Your task to perform on an android device: turn on the 24-hour format for clock Image 0: 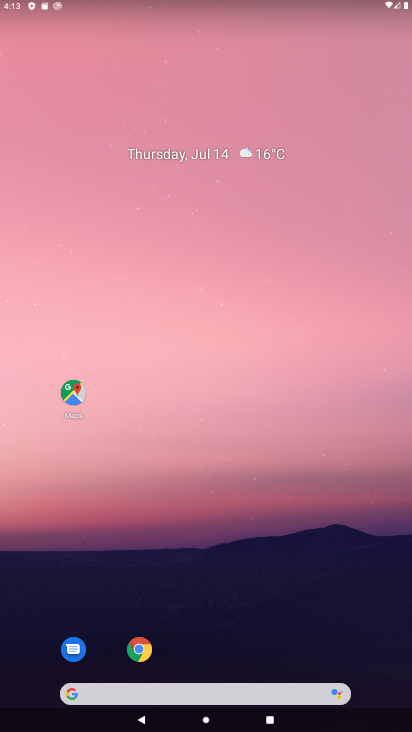
Step 0: drag from (227, 319) to (128, 33)
Your task to perform on an android device: turn on the 24-hour format for clock Image 1: 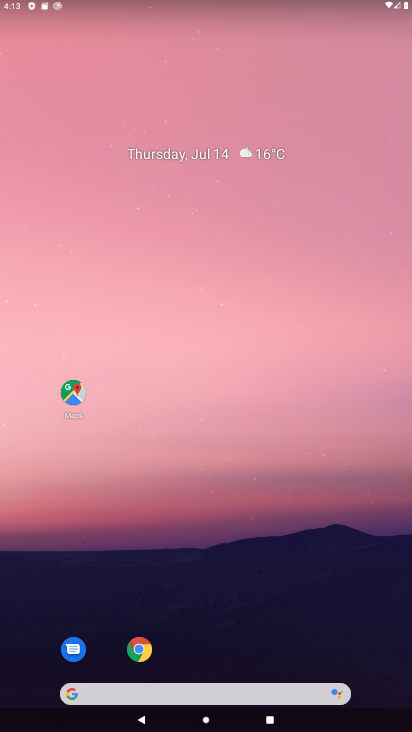
Step 1: drag from (291, 433) to (253, 14)
Your task to perform on an android device: turn on the 24-hour format for clock Image 2: 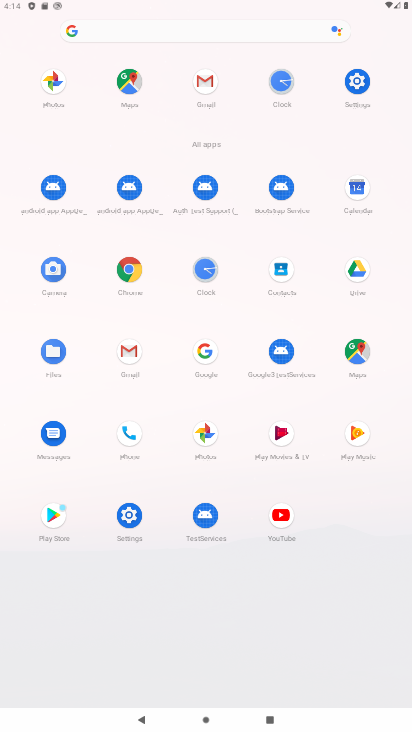
Step 2: click (209, 270)
Your task to perform on an android device: turn on the 24-hour format for clock Image 3: 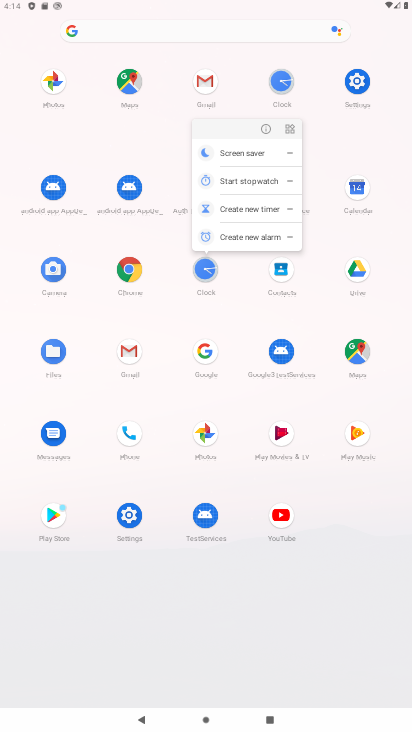
Step 3: click (213, 275)
Your task to perform on an android device: turn on the 24-hour format for clock Image 4: 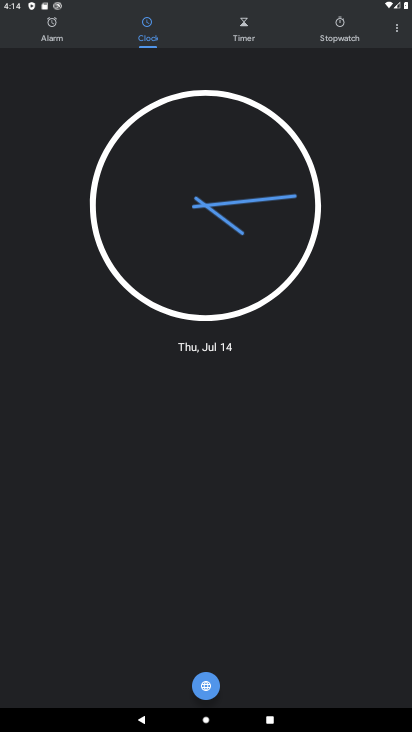
Step 4: click (397, 23)
Your task to perform on an android device: turn on the 24-hour format for clock Image 5: 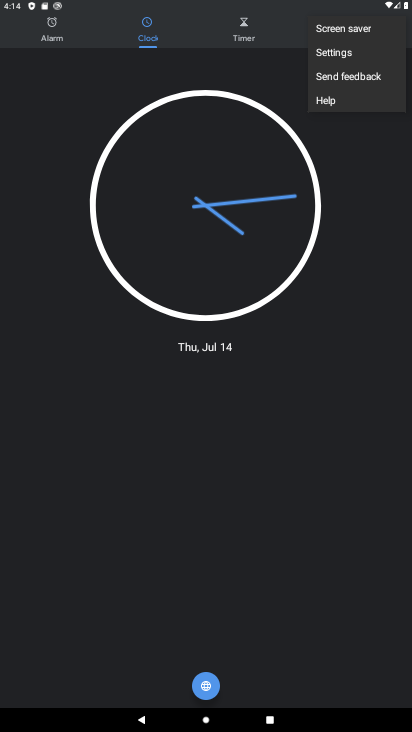
Step 5: click (330, 53)
Your task to perform on an android device: turn on the 24-hour format for clock Image 6: 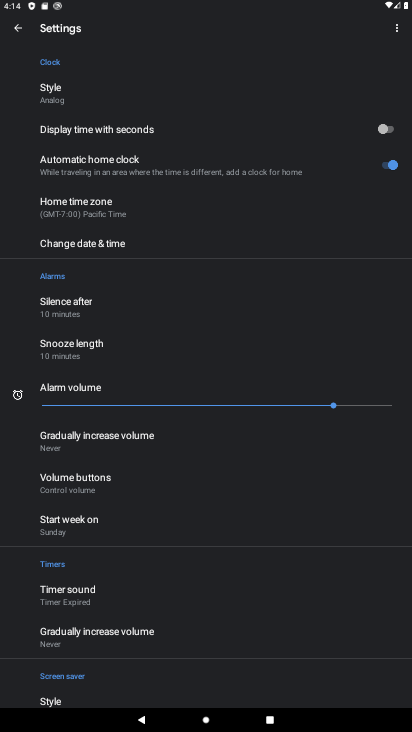
Step 6: click (88, 246)
Your task to perform on an android device: turn on the 24-hour format for clock Image 7: 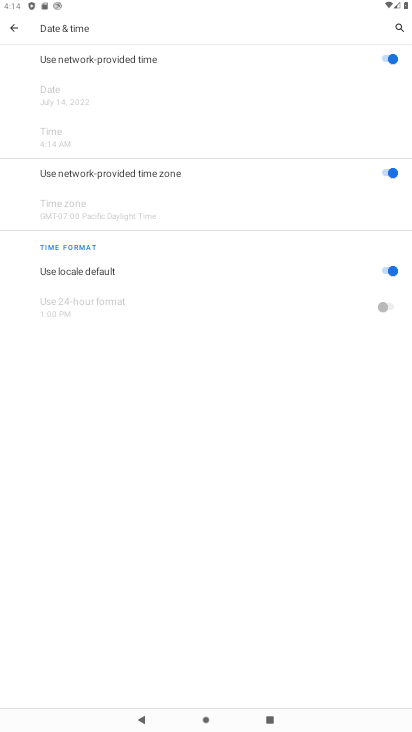
Step 7: click (392, 266)
Your task to perform on an android device: turn on the 24-hour format for clock Image 8: 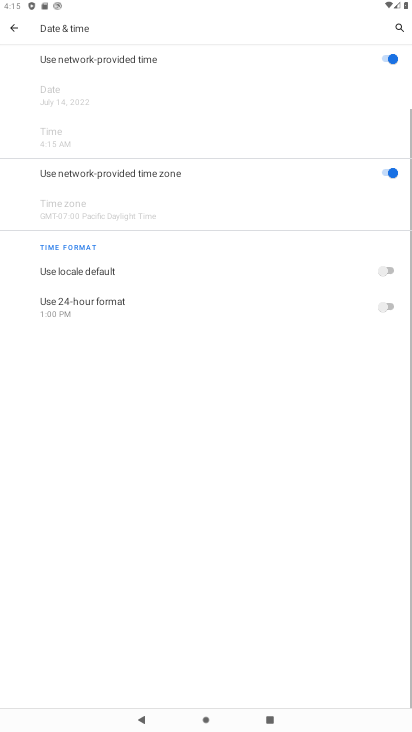
Step 8: click (386, 310)
Your task to perform on an android device: turn on the 24-hour format for clock Image 9: 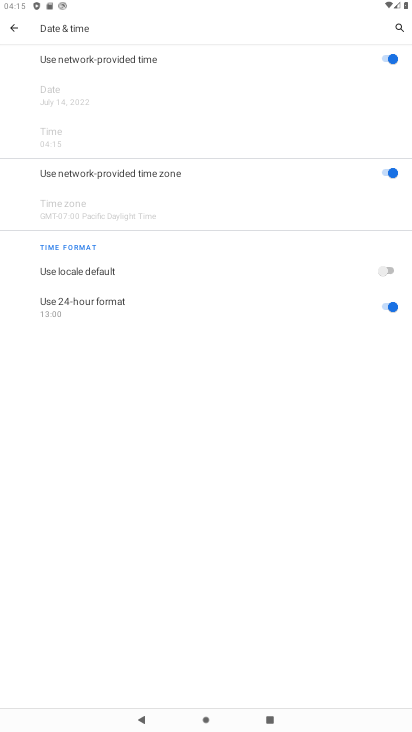
Step 9: task complete